Your task to perform on an android device: Search for logitech g pro on target.com, select the first entry, add it to the cart, then select checkout. Image 0: 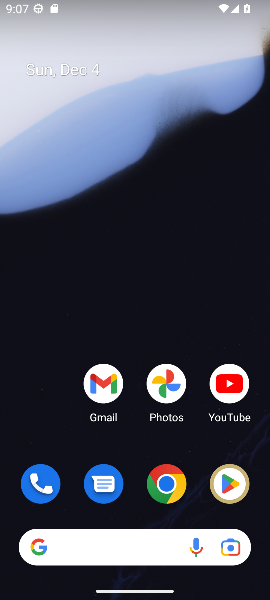
Step 0: click (170, 483)
Your task to perform on an android device: Search for logitech g pro on target.com, select the first entry, add it to the cart, then select checkout. Image 1: 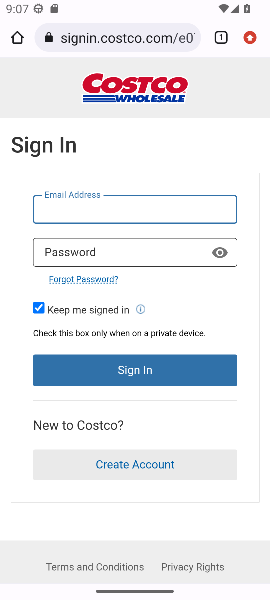
Step 1: click (110, 39)
Your task to perform on an android device: Search for logitech g pro on target.com, select the first entry, add it to the cart, then select checkout. Image 2: 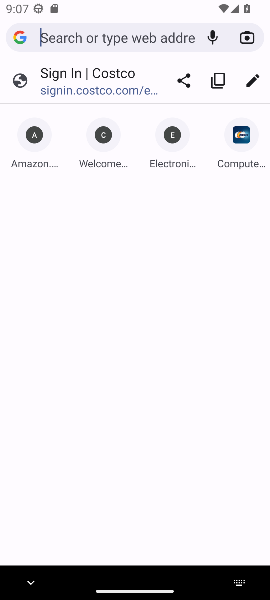
Step 2: type "target.com"
Your task to perform on an android device: Search for logitech g pro on target.com, select the first entry, add it to the cart, then select checkout. Image 3: 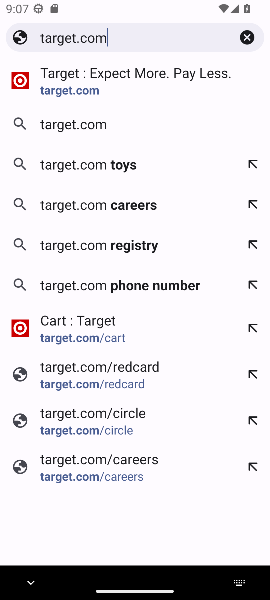
Step 3: click (72, 88)
Your task to perform on an android device: Search for logitech g pro on target.com, select the first entry, add it to the cart, then select checkout. Image 4: 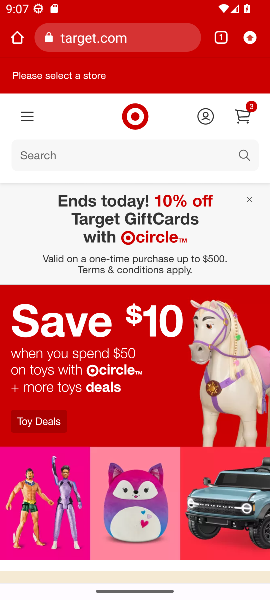
Step 4: click (44, 150)
Your task to perform on an android device: Search for logitech g pro on target.com, select the first entry, add it to the cart, then select checkout. Image 5: 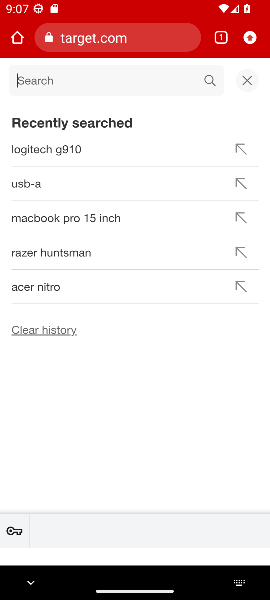
Step 5: type " logitech g pro"
Your task to perform on an android device: Search for logitech g pro on target.com, select the first entry, add it to the cart, then select checkout. Image 6: 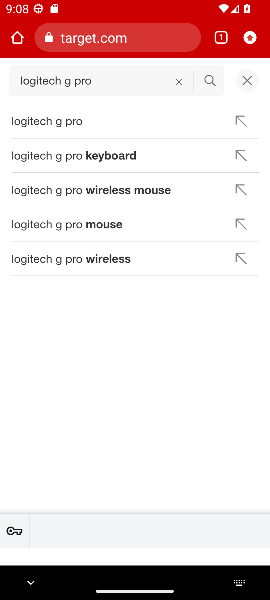
Step 6: click (63, 122)
Your task to perform on an android device: Search for logitech g pro on target.com, select the first entry, add it to the cart, then select checkout. Image 7: 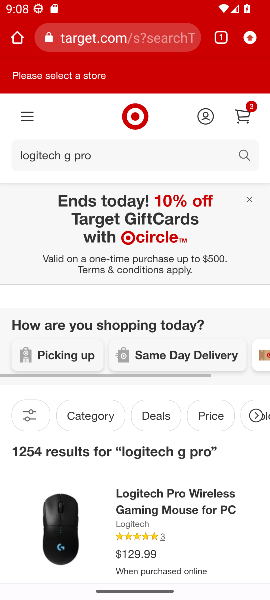
Step 7: task complete